Your task to perform on an android device: turn off location Image 0: 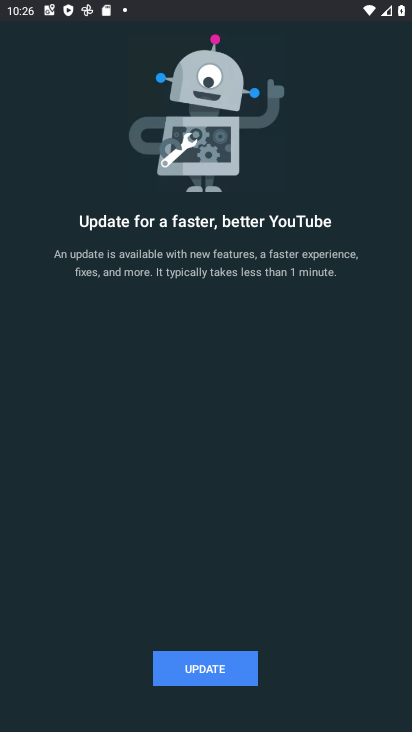
Step 0: press back button
Your task to perform on an android device: turn off location Image 1: 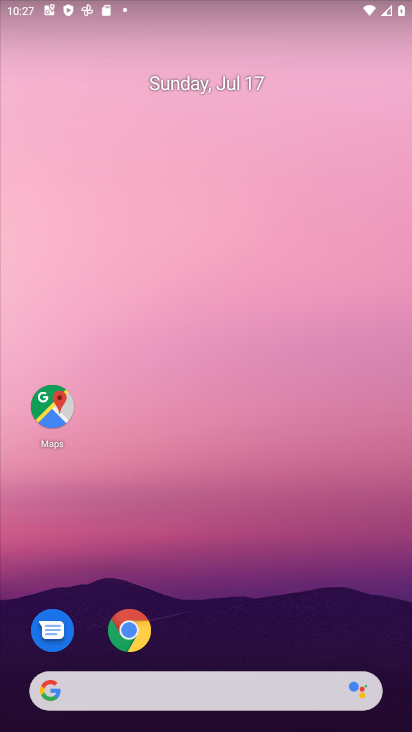
Step 1: drag from (270, 608) to (110, 160)
Your task to perform on an android device: turn off location Image 2: 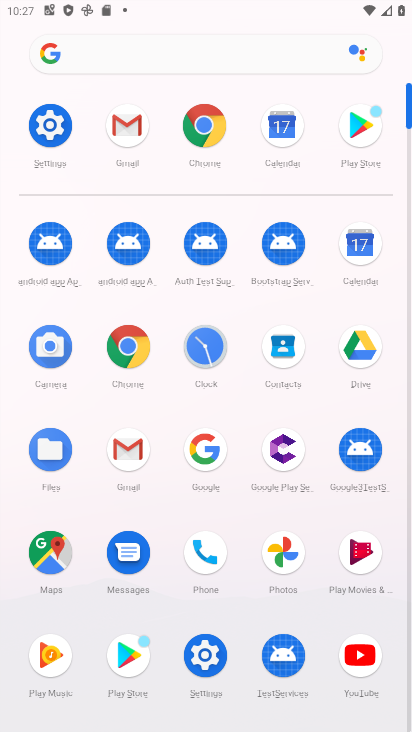
Step 2: click (65, 122)
Your task to perform on an android device: turn off location Image 3: 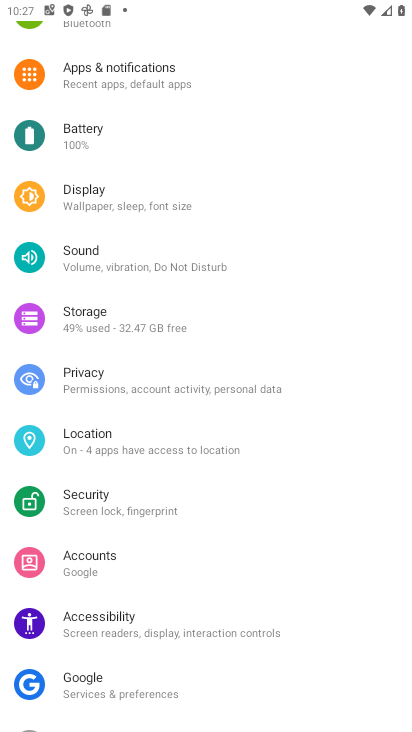
Step 3: drag from (125, 157) to (84, 410)
Your task to perform on an android device: turn off location Image 4: 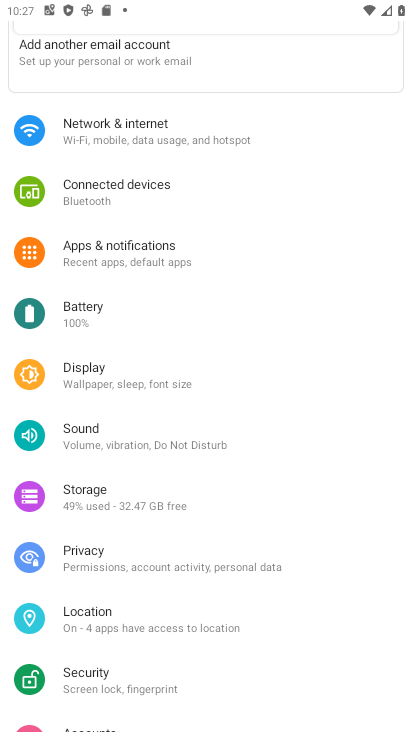
Step 4: click (133, 616)
Your task to perform on an android device: turn off location Image 5: 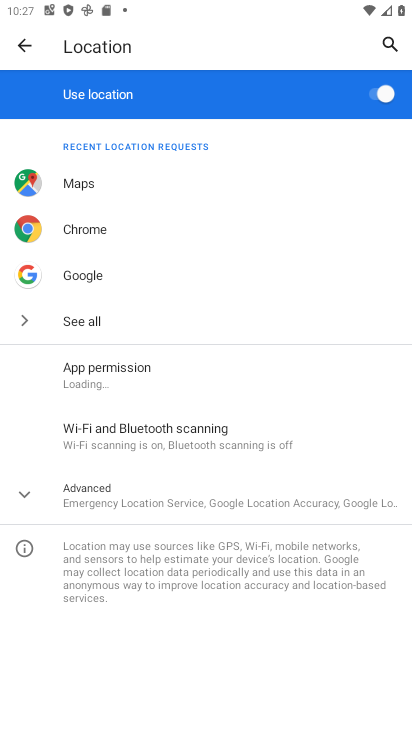
Step 5: click (317, 104)
Your task to perform on an android device: turn off location Image 6: 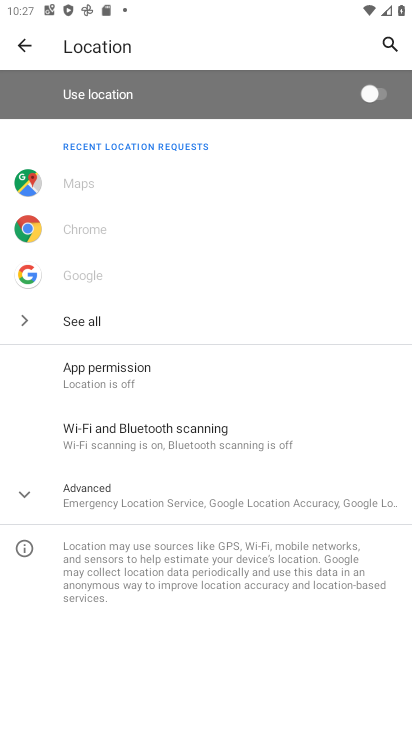
Step 6: task complete